Your task to perform on an android device: toggle airplane mode Image 0: 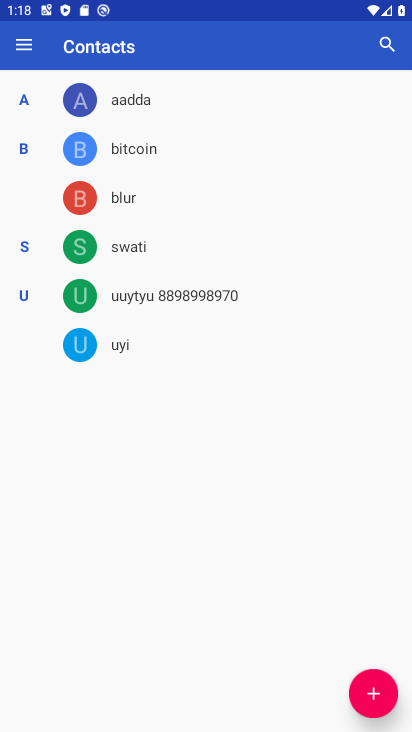
Step 0: press home button
Your task to perform on an android device: toggle airplane mode Image 1: 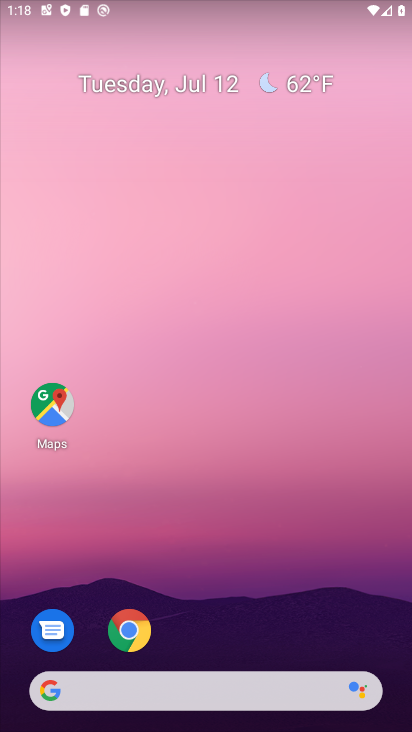
Step 1: drag from (236, 538) to (230, 88)
Your task to perform on an android device: toggle airplane mode Image 2: 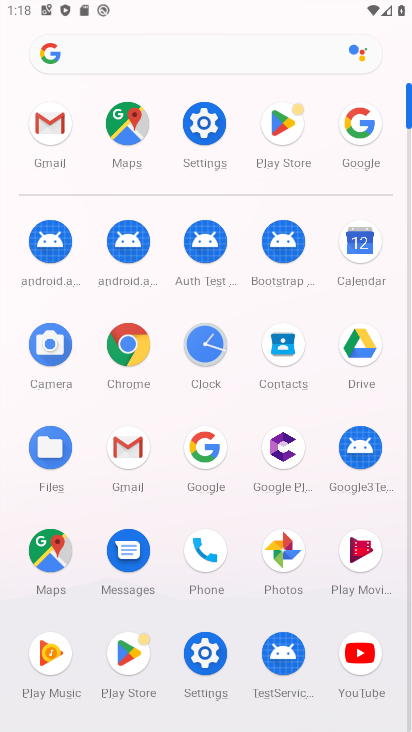
Step 2: click (201, 125)
Your task to perform on an android device: toggle airplane mode Image 3: 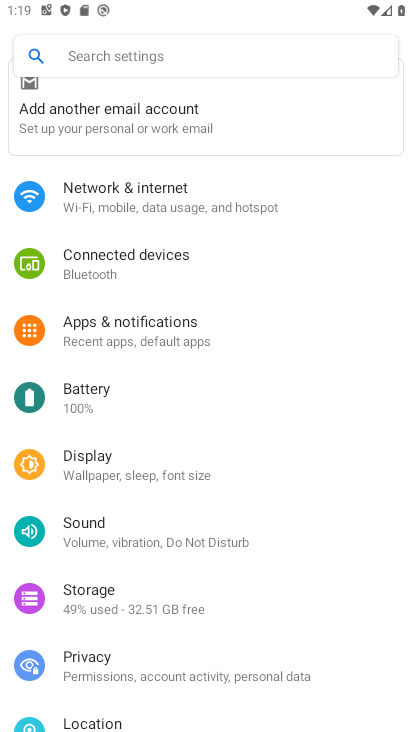
Step 3: click (175, 196)
Your task to perform on an android device: toggle airplane mode Image 4: 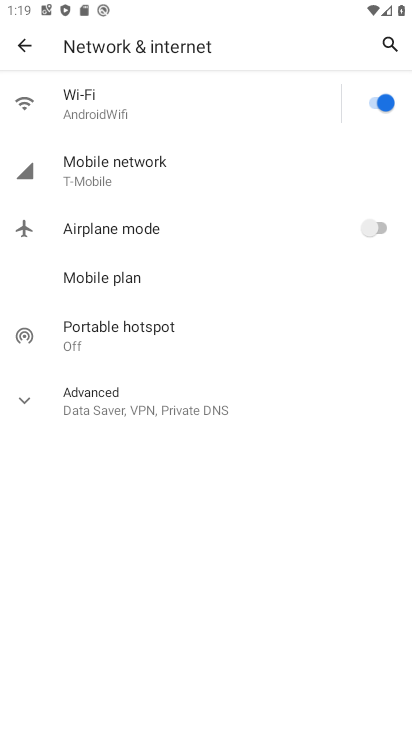
Step 4: click (362, 225)
Your task to perform on an android device: toggle airplane mode Image 5: 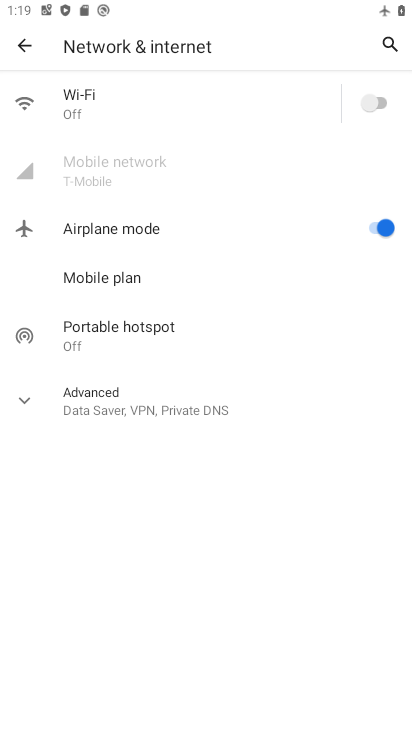
Step 5: task complete